Your task to perform on an android device: Go to battery settings Image 0: 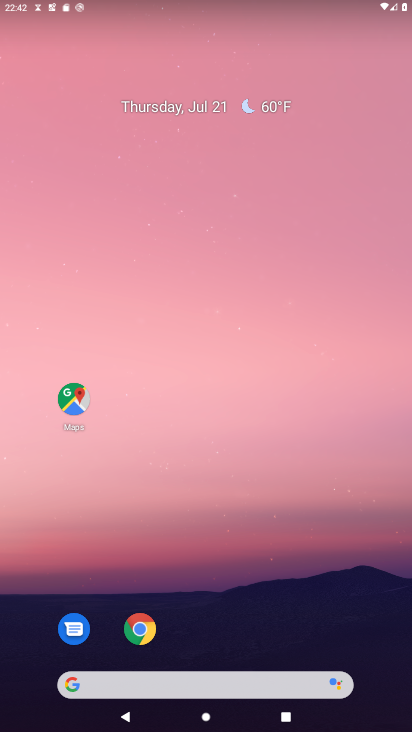
Step 0: drag from (240, 620) to (243, 477)
Your task to perform on an android device: Go to battery settings Image 1: 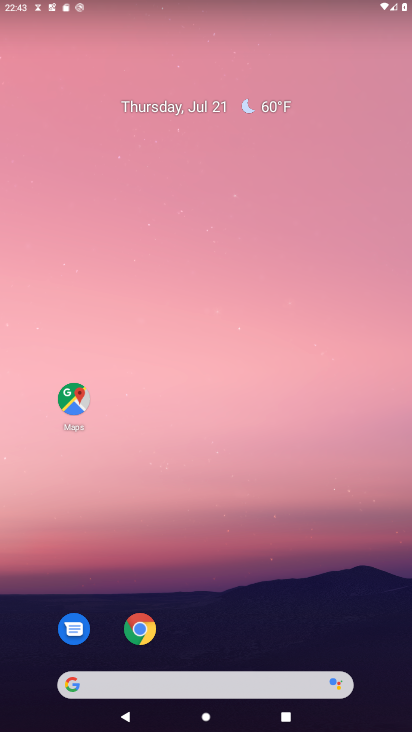
Step 1: drag from (231, 641) to (231, 80)
Your task to perform on an android device: Go to battery settings Image 2: 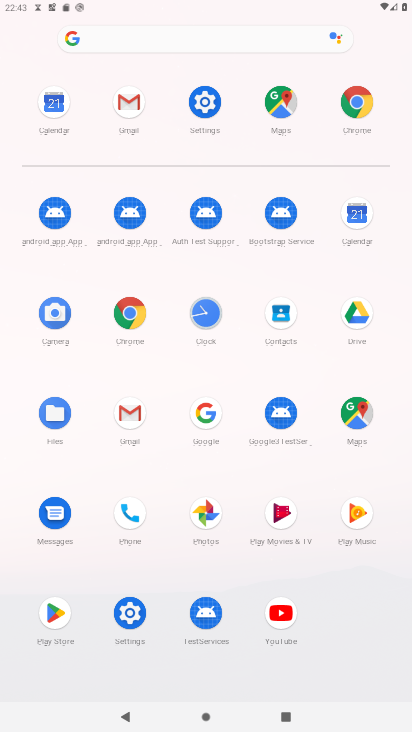
Step 2: click (217, 97)
Your task to perform on an android device: Go to battery settings Image 3: 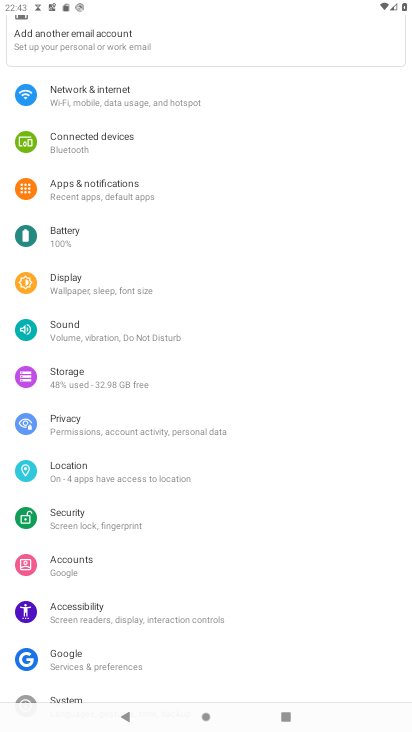
Step 3: click (69, 229)
Your task to perform on an android device: Go to battery settings Image 4: 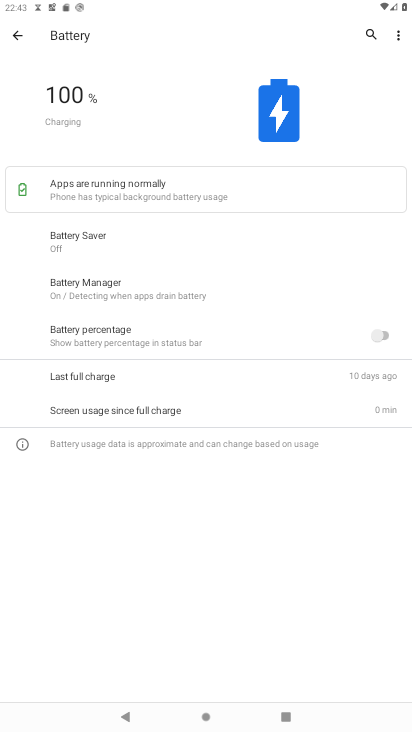
Step 4: task complete